Your task to perform on an android device: turn on showing notifications on the lock screen Image 0: 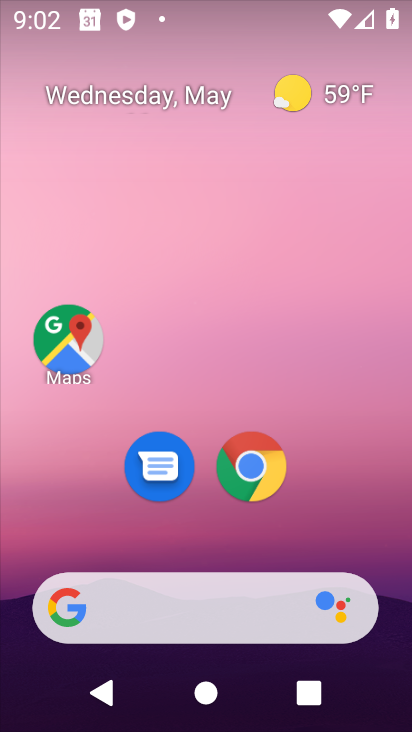
Step 0: drag from (338, 529) to (315, 216)
Your task to perform on an android device: turn on showing notifications on the lock screen Image 1: 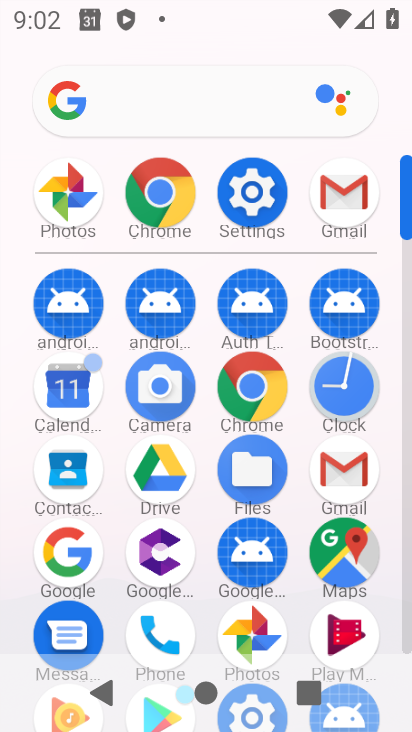
Step 1: click (254, 187)
Your task to perform on an android device: turn on showing notifications on the lock screen Image 2: 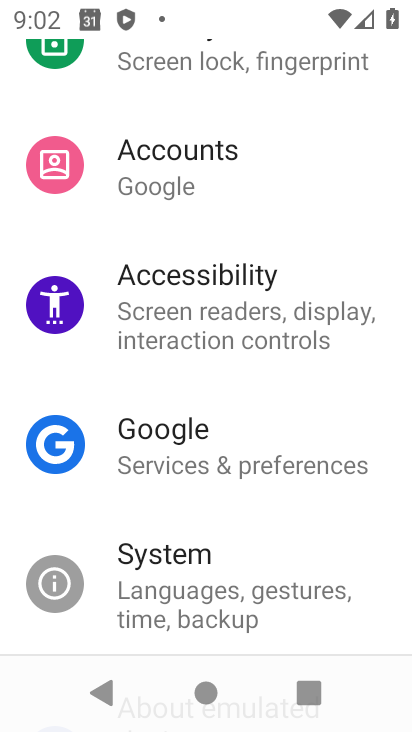
Step 2: drag from (239, 182) to (268, 608)
Your task to perform on an android device: turn on showing notifications on the lock screen Image 3: 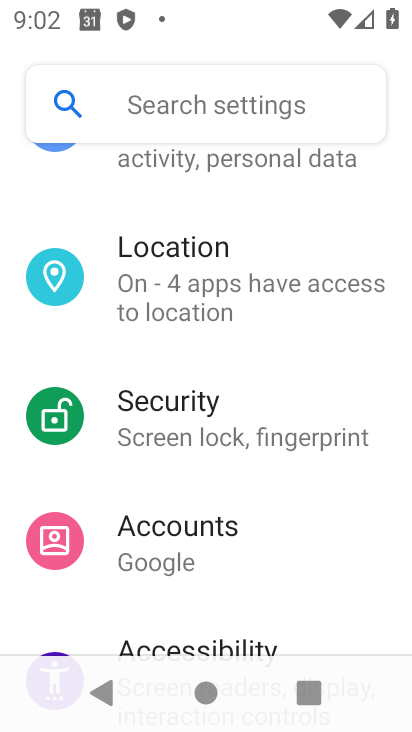
Step 3: drag from (233, 175) to (266, 581)
Your task to perform on an android device: turn on showing notifications on the lock screen Image 4: 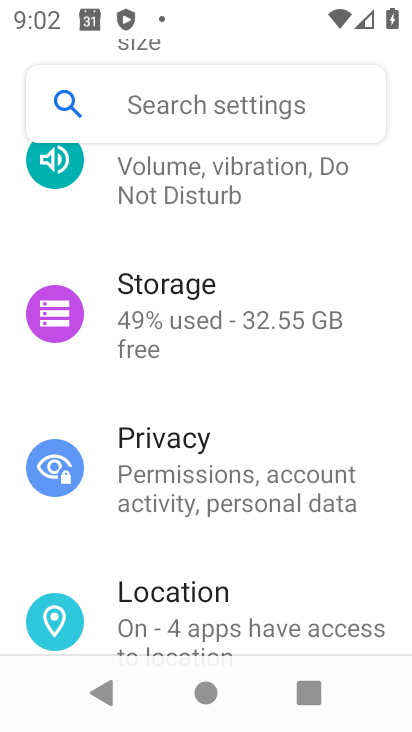
Step 4: drag from (226, 264) to (249, 684)
Your task to perform on an android device: turn on showing notifications on the lock screen Image 5: 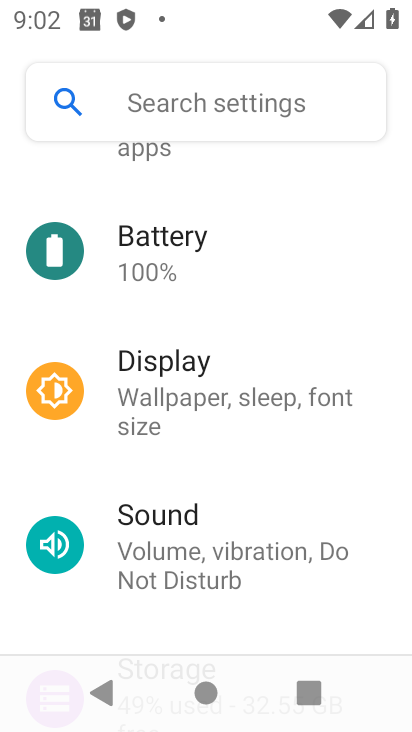
Step 5: drag from (223, 229) to (251, 646)
Your task to perform on an android device: turn on showing notifications on the lock screen Image 6: 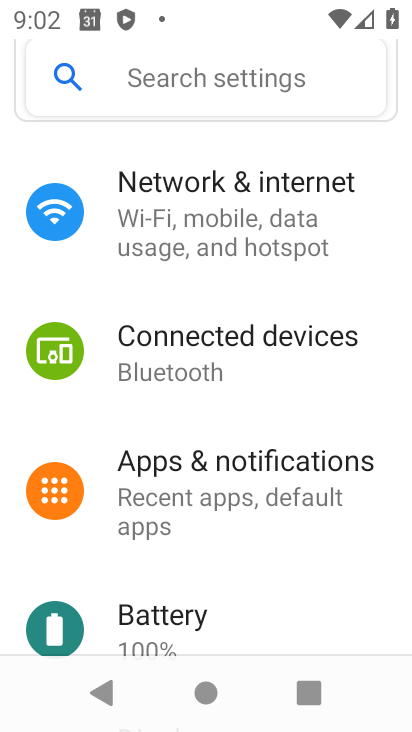
Step 6: click (197, 475)
Your task to perform on an android device: turn on showing notifications on the lock screen Image 7: 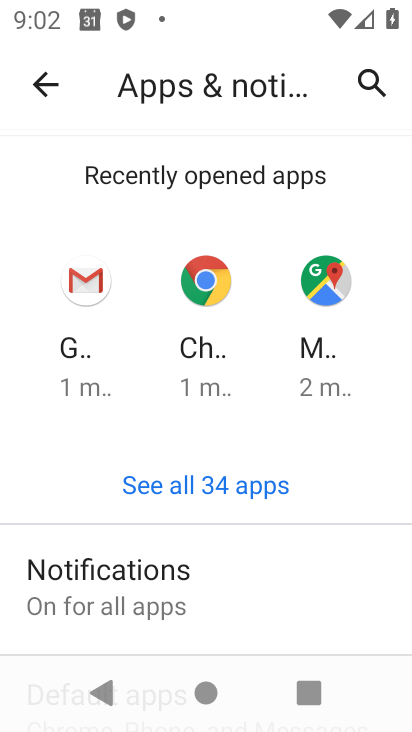
Step 7: drag from (196, 587) to (217, 233)
Your task to perform on an android device: turn on showing notifications on the lock screen Image 8: 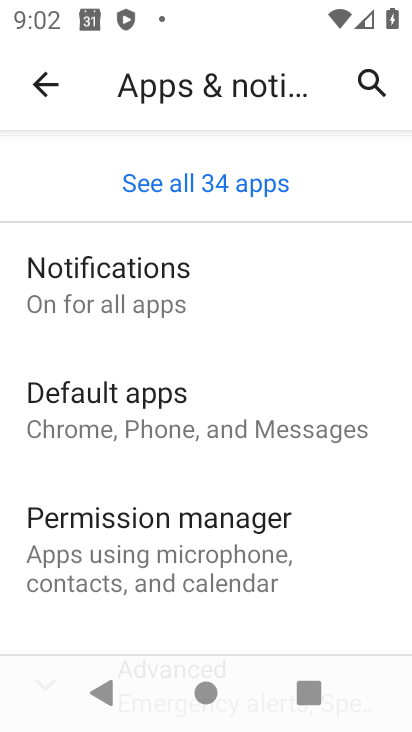
Step 8: click (111, 269)
Your task to perform on an android device: turn on showing notifications on the lock screen Image 9: 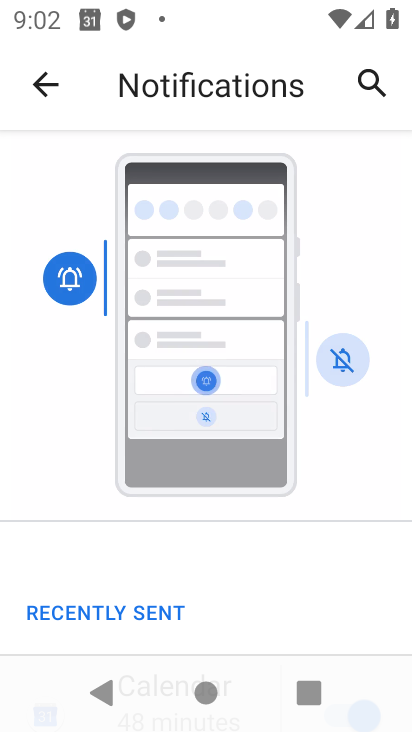
Step 9: drag from (336, 483) to (336, 114)
Your task to perform on an android device: turn on showing notifications on the lock screen Image 10: 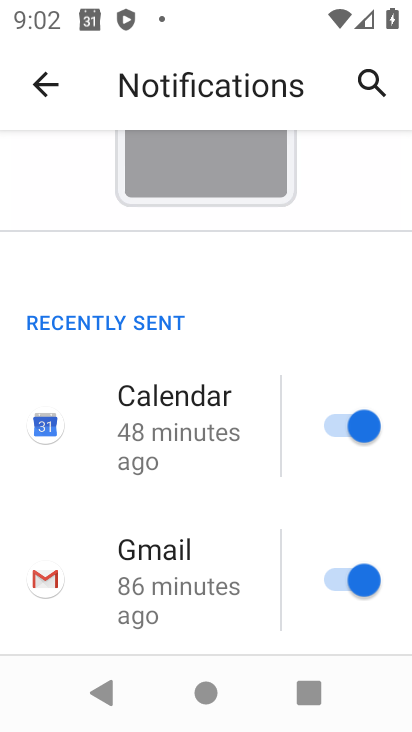
Step 10: click (179, 370)
Your task to perform on an android device: turn on showing notifications on the lock screen Image 11: 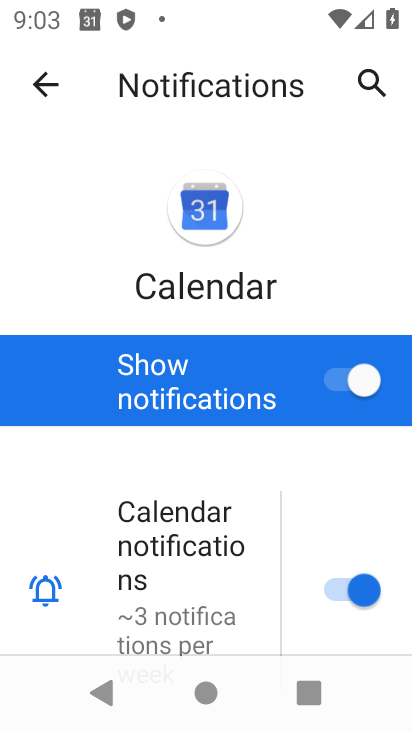
Step 11: drag from (208, 588) to (227, 9)
Your task to perform on an android device: turn on showing notifications on the lock screen Image 12: 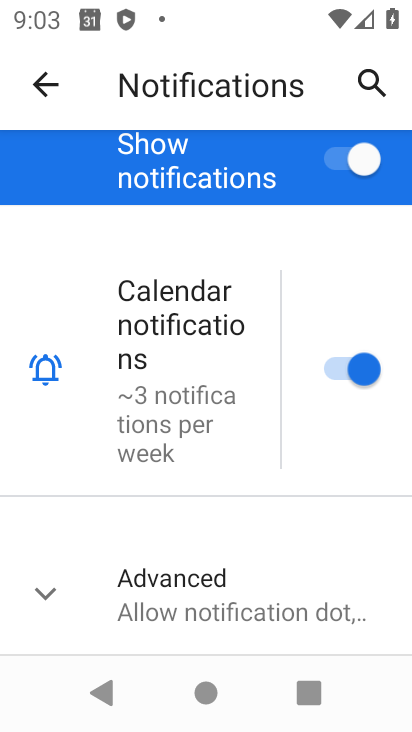
Step 12: drag from (223, 575) to (344, 136)
Your task to perform on an android device: turn on showing notifications on the lock screen Image 13: 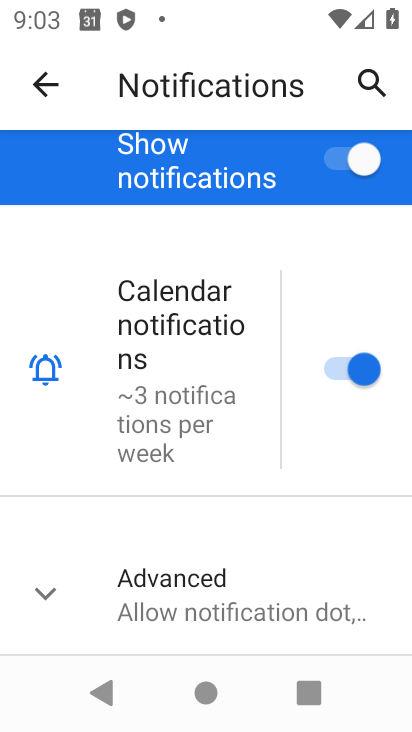
Step 13: click (213, 608)
Your task to perform on an android device: turn on showing notifications on the lock screen Image 14: 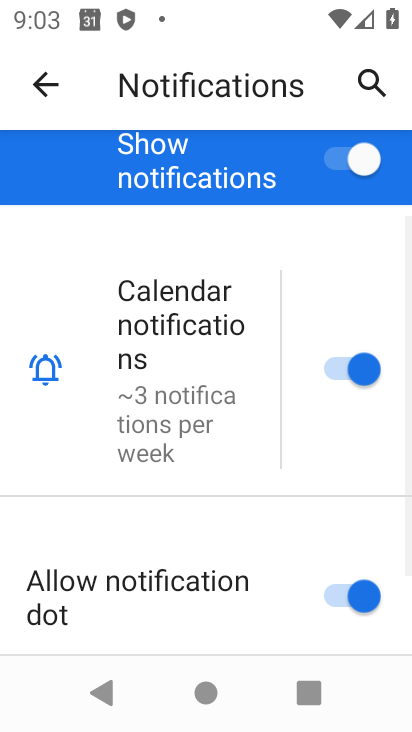
Step 14: drag from (206, 585) to (245, 203)
Your task to perform on an android device: turn on showing notifications on the lock screen Image 15: 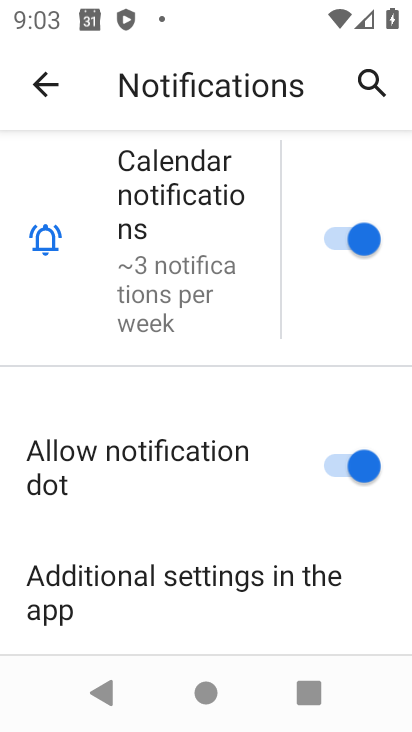
Step 15: click (65, 78)
Your task to perform on an android device: turn on showing notifications on the lock screen Image 16: 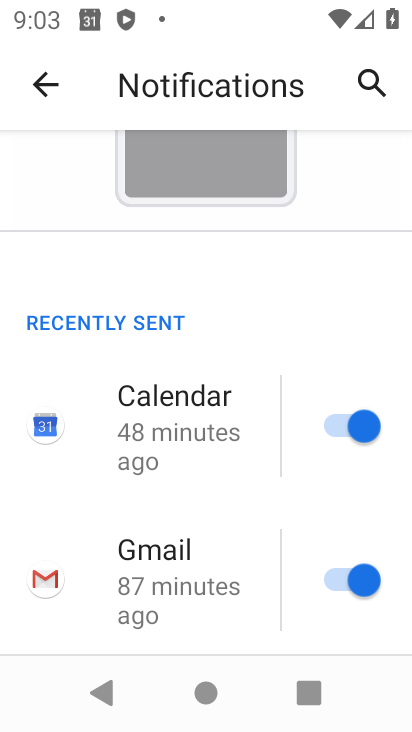
Step 16: click (50, 83)
Your task to perform on an android device: turn on showing notifications on the lock screen Image 17: 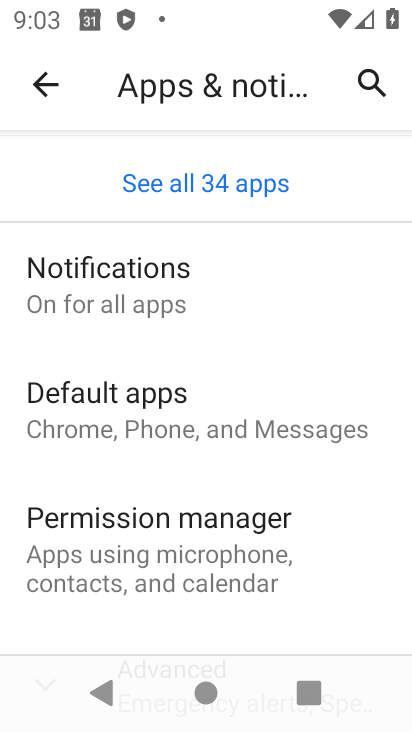
Step 17: click (191, 195)
Your task to perform on an android device: turn on showing notifications on the lock screen Image 18: 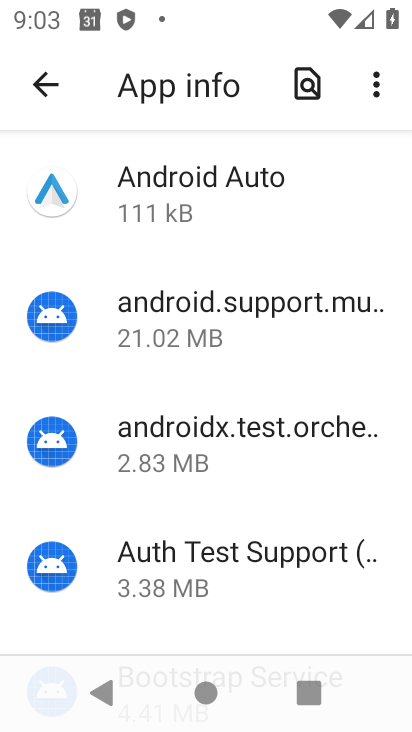
Step 18: click (35, 85)
Your task to perform on an android device: turn on showing notifications on the lock screen Image 19: 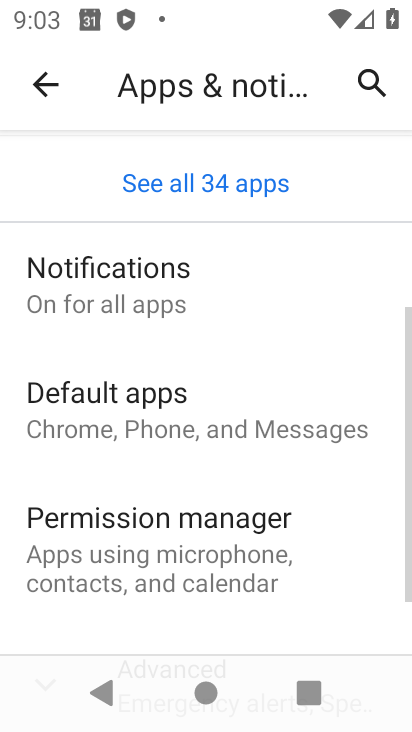
Step 19: click (140, 277)
Your task to perform on an android device: turn on showing notifications on the lock screen Image 20: 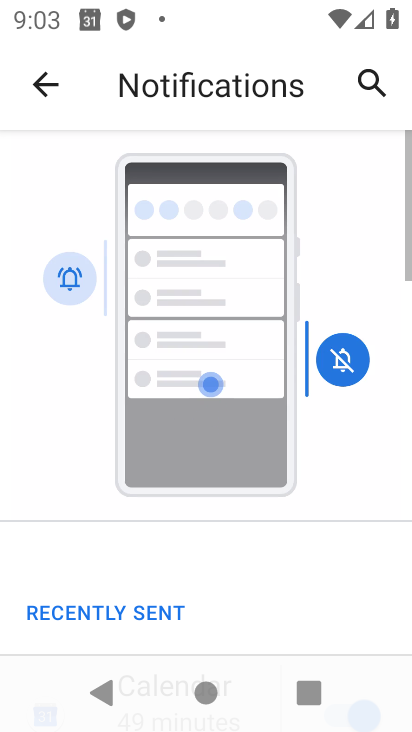
Step 20: drag from (210, 608) to (239, 104)
Your task to perform on an android device: turn on showing notifications on the lock screen Image 21: 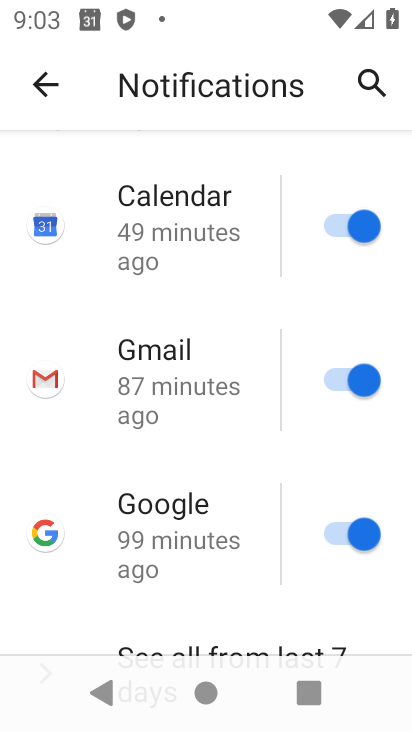
Step 21: drag from (180, 625) to (191, 96)
Your task to perform on an android device: turn on showing notifications on the lock screen Image 22: 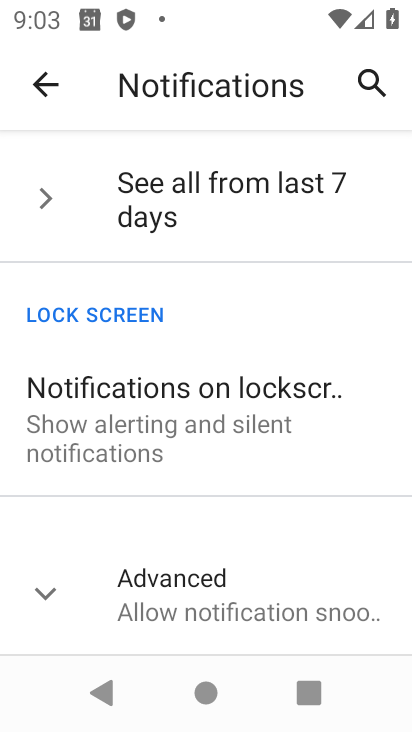
Step 22: click (96, 461)
Your task to perform on an android device: turn on showing notifications on the lock screen Image 23: 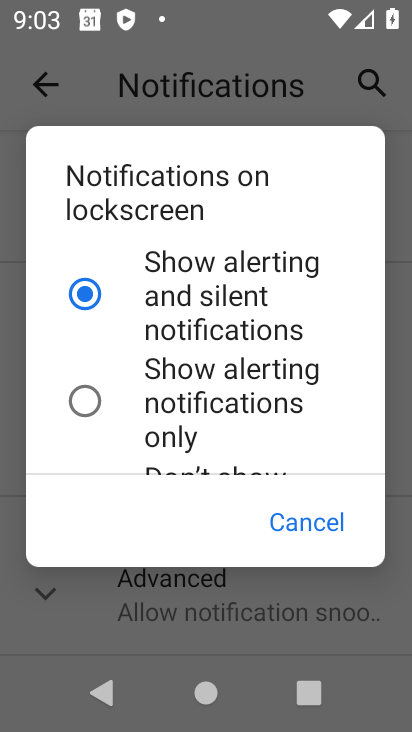
Step 23: click (177, 415)
Your task to perform on an android device: turn on showing notifications on the lock screen Image 24: 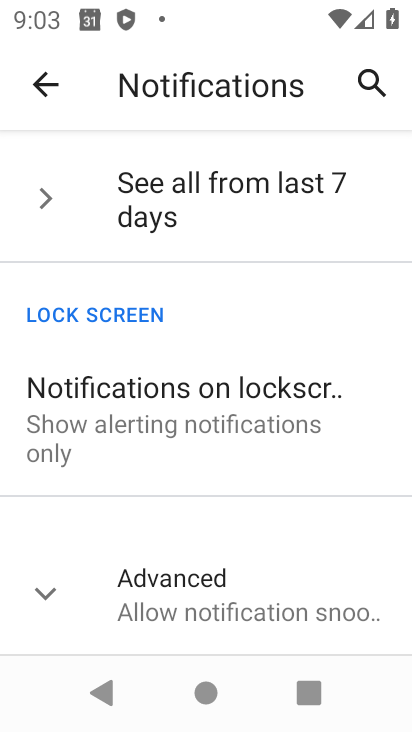
Step 24: task complete